Your task to perform on an android device: turn on the 24-hour format for clock Image 0: 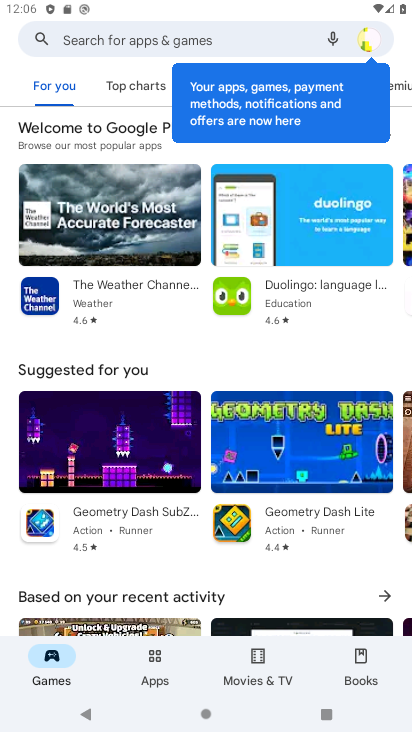
Step 0: press home button
Your task to perform on an android device: turn on the 24-hour format for clock Image 1: 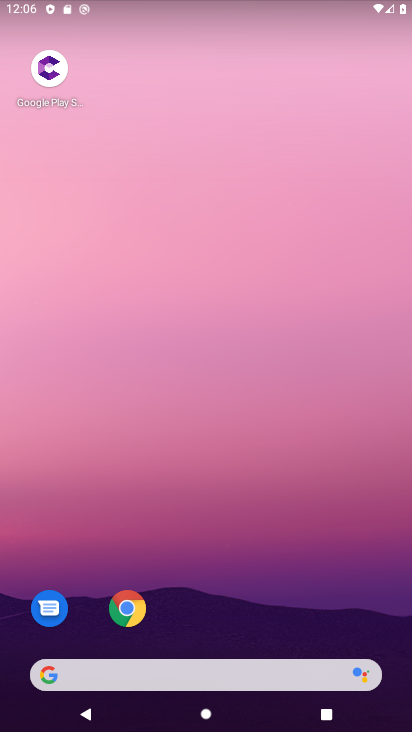
Step 1: drag from (240, 678) to (253, 191)
Your task to perform on an android device: turn on the 24-hour format for clock Image 2: 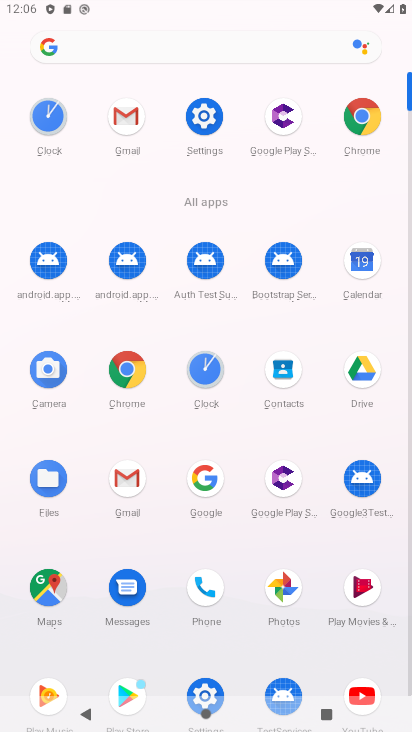
Step 2: click (194, 375)
Your task to perform on an android device: turn on the 24-hour format for clock Image 3: 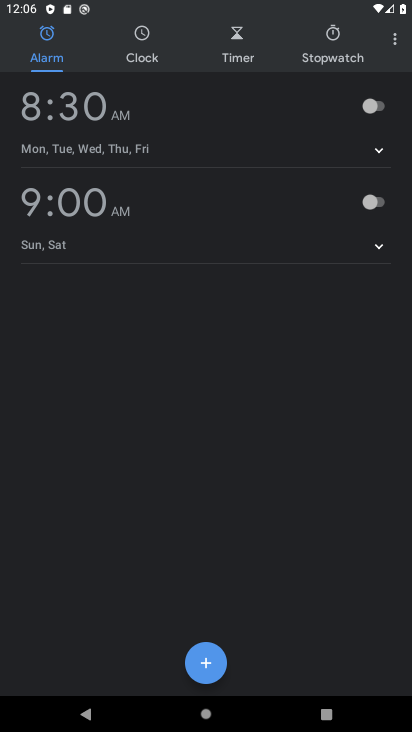
Step 3: click (376, 53)
Your task to perform on an android device: turn on the 24-hour format for clock Image 4: 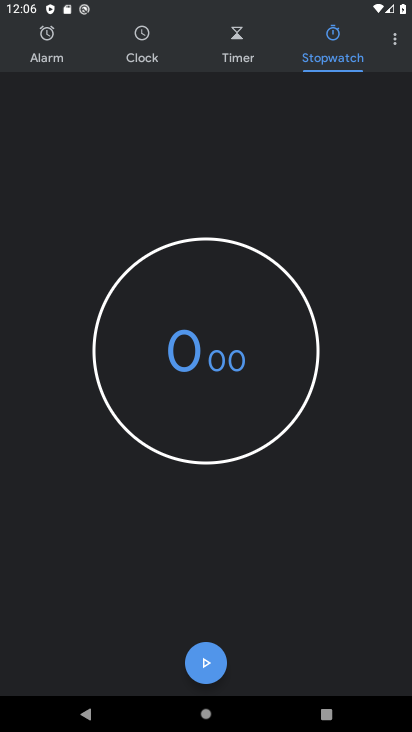
Step 4: click (385, 57)
Your task to perform on an android device: turn on the 24-hour format for clock Image 5: 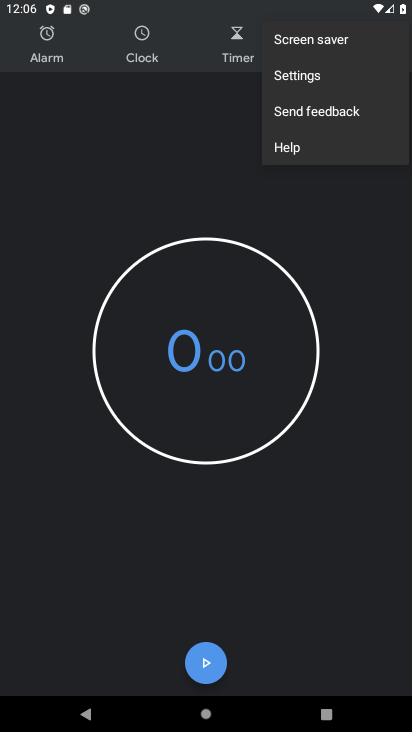
Step 5: click (327, 76)
Your task to perform on an android device: turn on the 24-hour format for clock Image 6: 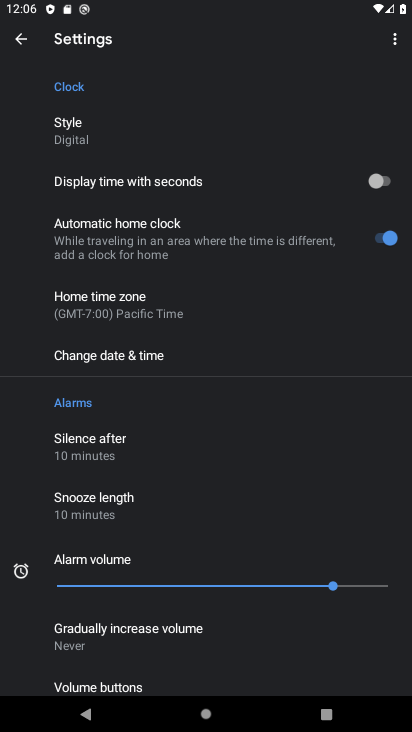
Step 6: click (130, 354)
Your task to perform on an android device: turn on the 24-hour format for clock Image 7: 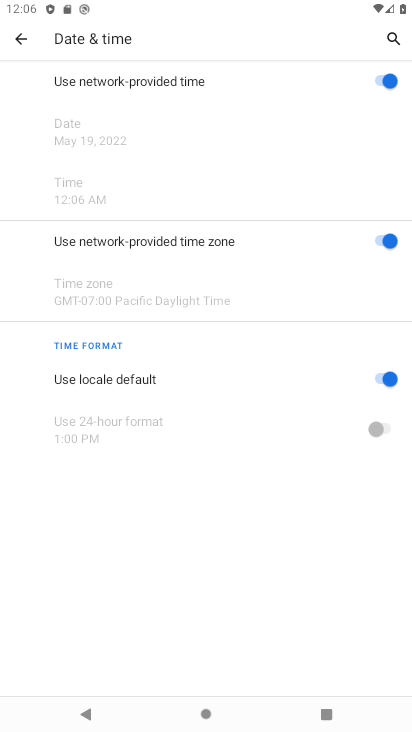
Step 7: click (386, 380)
Your task to perform on an android device: turn on the 24-hour format for clock Image 8: 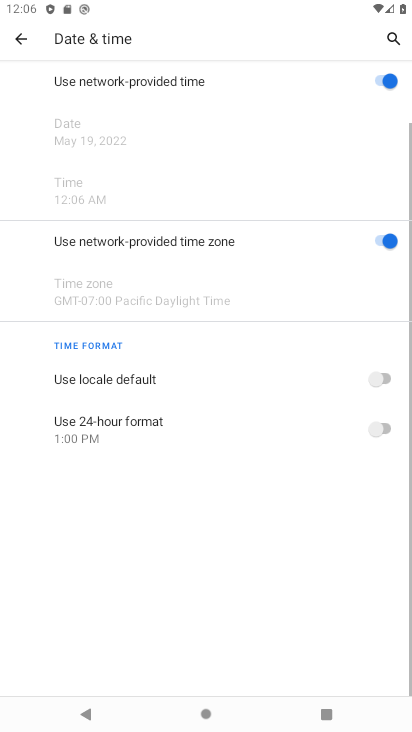
Step 8: click (384, 430)
Your task to perform on an android device: turn on the 24-hour format for clock Image 9: 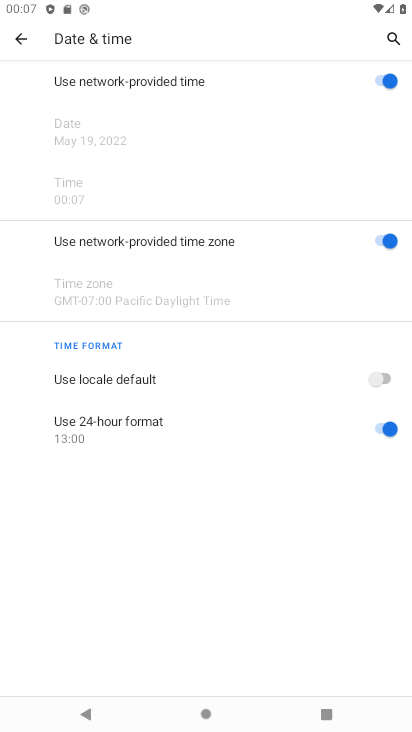
Step 9: task complete